Your task to perform on an android device: all mails in gmail Image 0: 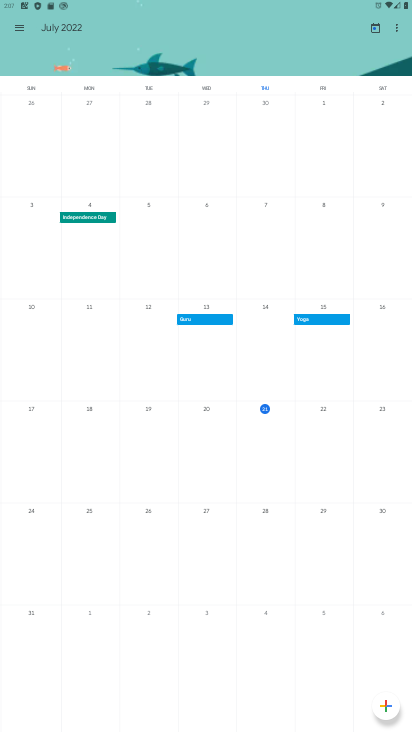
Step 0: press home button
Your task to perform on an android device: all mails in gmail Image 1: 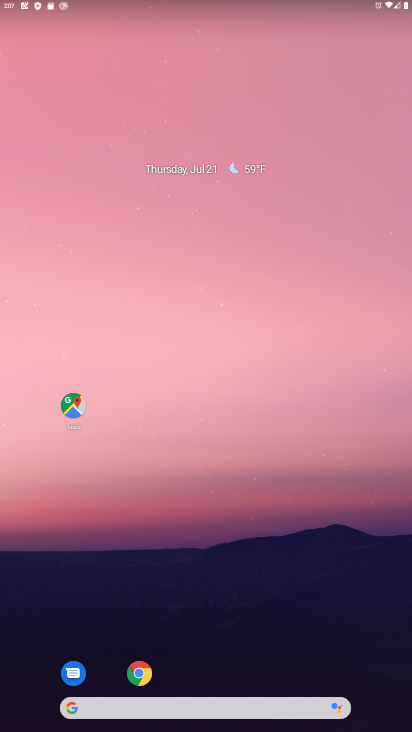
Step 1: drag from (177, 706) to (364, 28)
Your task to perform on an android device: all mails in gmail Image 2: 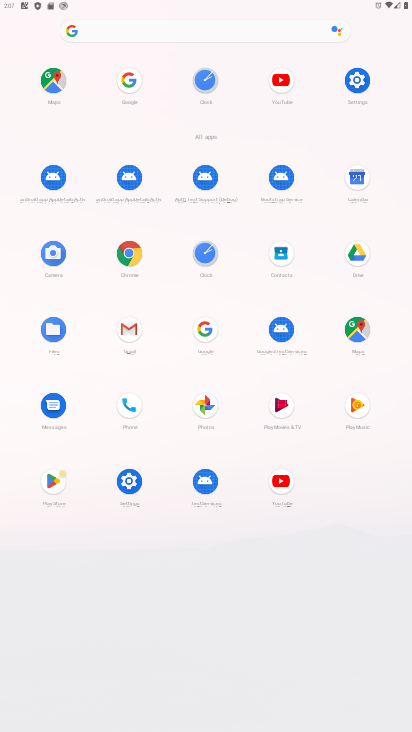
Step 2: click (129, 328)
Your task to perform on an android device: all mails in gmail Image 3: 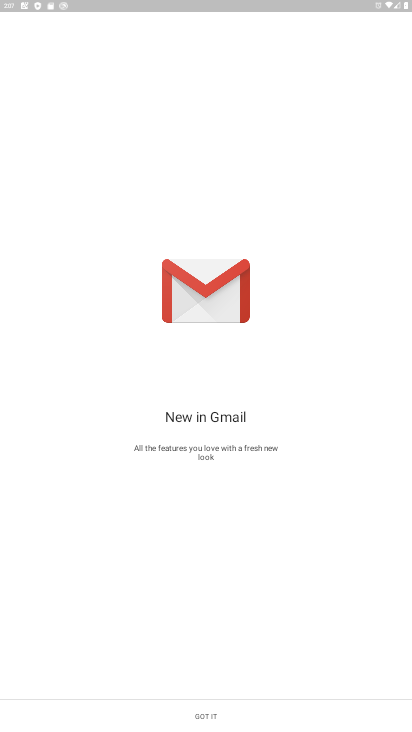
Step 3: click (206, 717)
Your task to perform on an android device: all mails in gmail Image 4: 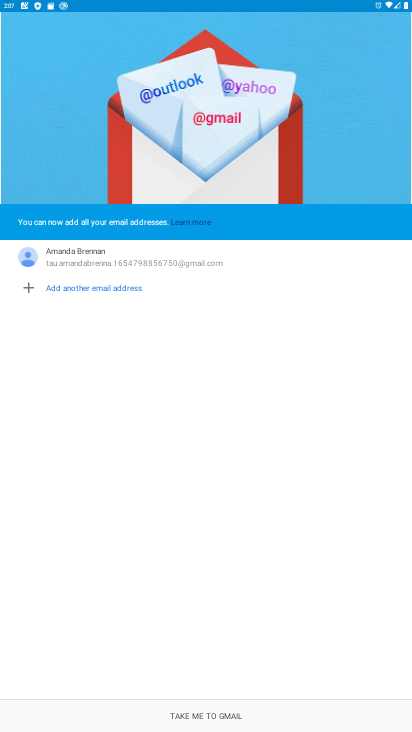
Step 4: click (209, 712)
Your task to perform on an android device: all mails in gmail Image 5: 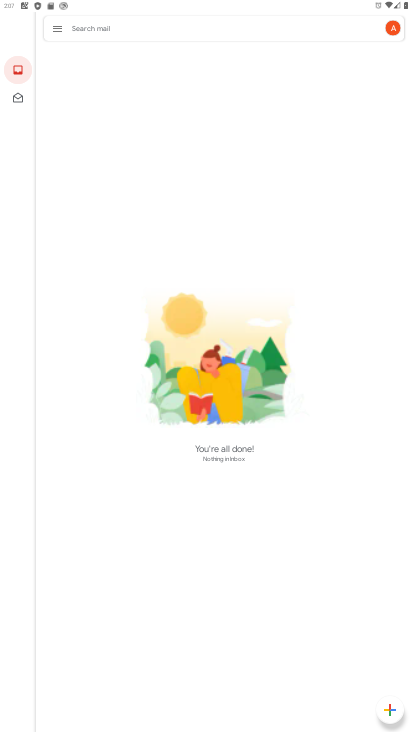
Step 5: click (57, 26)
Your task to perform on an android device: all mails in gmail Image 6: 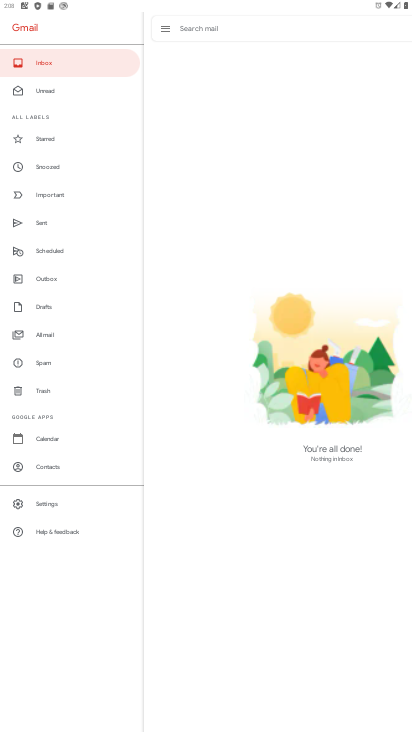
Step 6: click (42, 332)
Your task to perform on an android device: all mails in gmail Image 7: 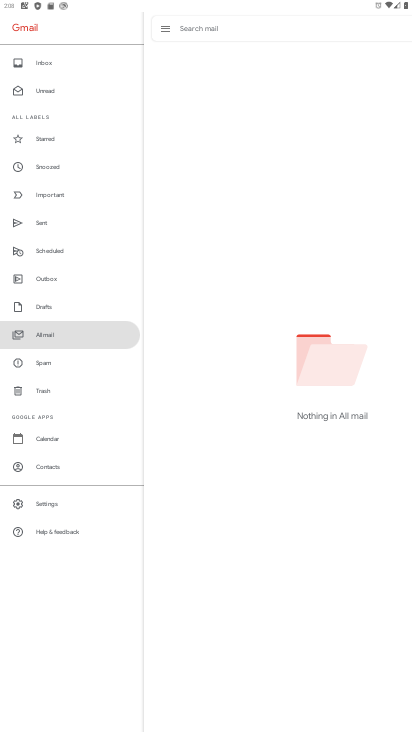
Step 7: click (53, 306)
Your task to perform on an android device: all mails in gmail Image 8: 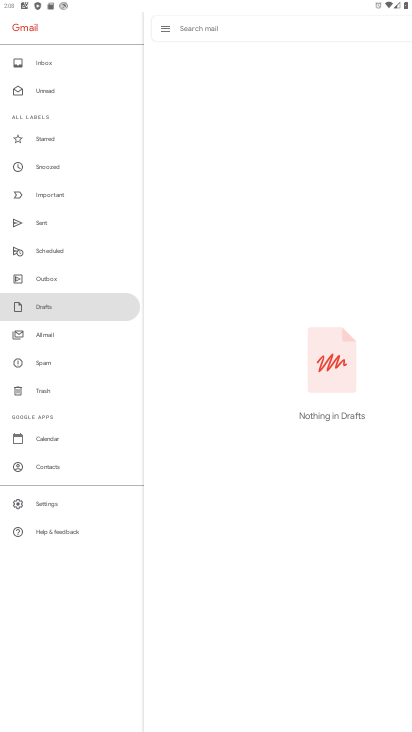
Step 8: click (61, 281)
Your task to perform on an android device: all mails in gmail Image 9: 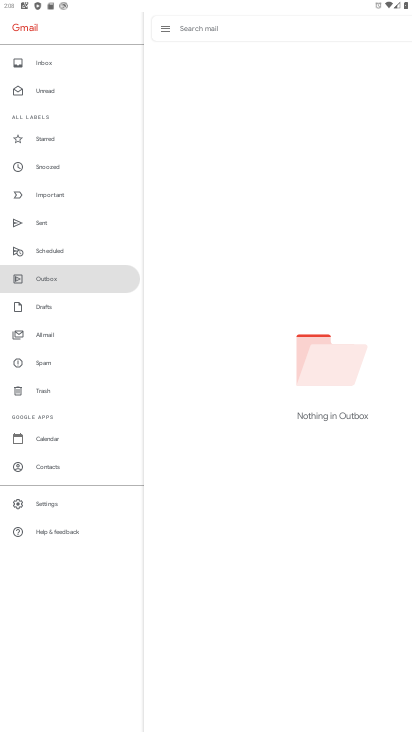
Step 9: click (61, 254)
Your task to perform on an android device: all mails in gmail Image 10: 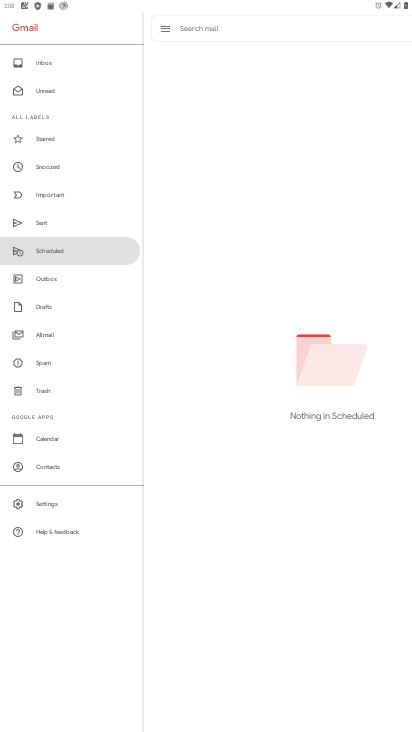
Step 10: task complete